Your task to perform on an android device: turn off smart reply in the gmail app Image 0: 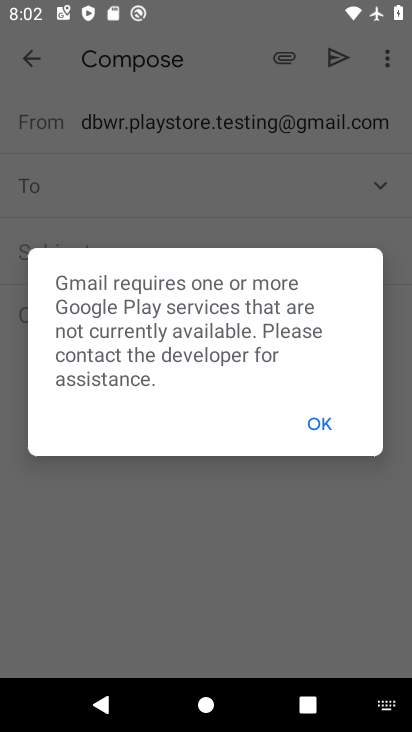
Step 0: click (304, 425)
Your task to perform on an android device: turn off smart reply in the gmail app Image 1: 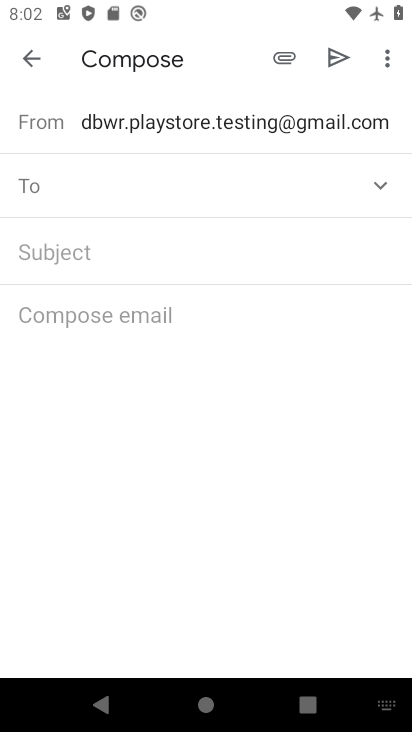
Step 1: press home button
Your task to perform on an android device: turn off smart reply in the gmail app Image 2: 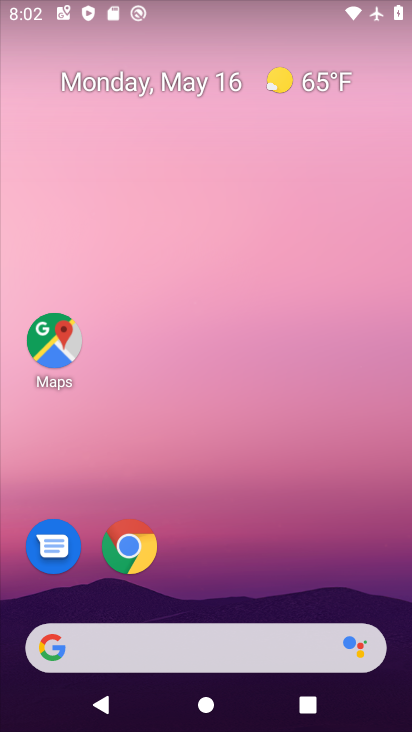
Step 2: drag from (249, 570) to (258, 175)
Your task to perform on an android device: turn off smart reply in the gmail app Image 3: 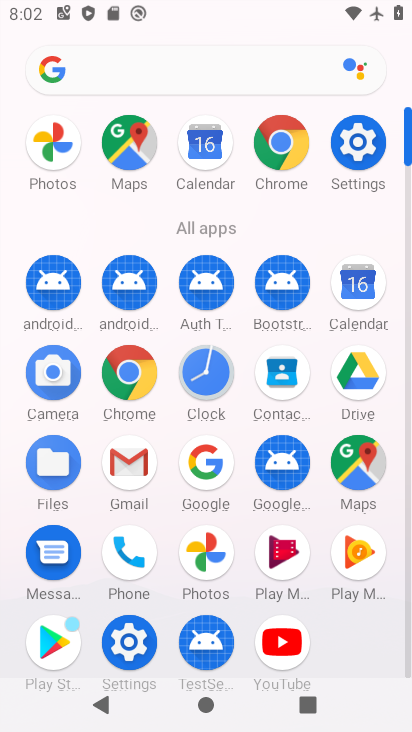
Step 3: click (132, 480)
Your task to perform on an android device: turn off smart reply in the gmail app Image 4: 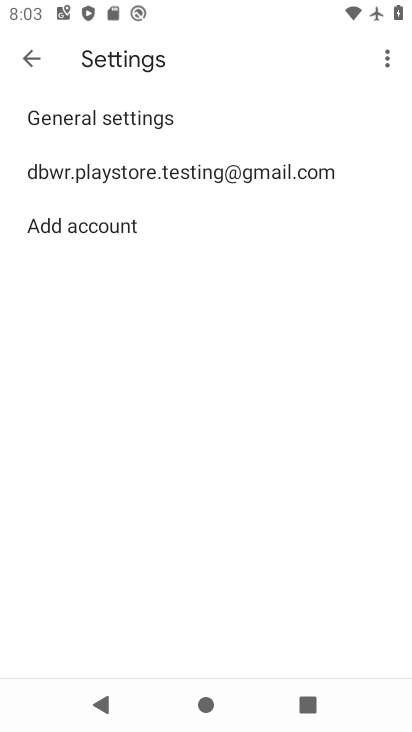
Step 4: click (99, 169)
Your task to perform on an android device: turn off smart reply in the gmail app Image 5: 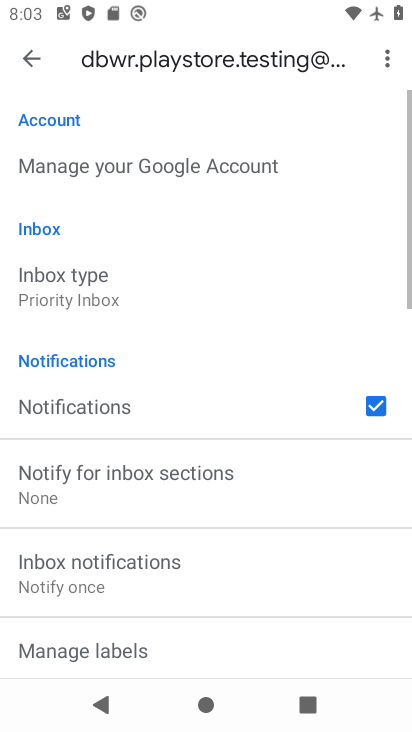
Step 5: drag from (132, 556) to (170, 312)
Your task to perform on an android device: turn off smart reply in the gmail app Image 6: 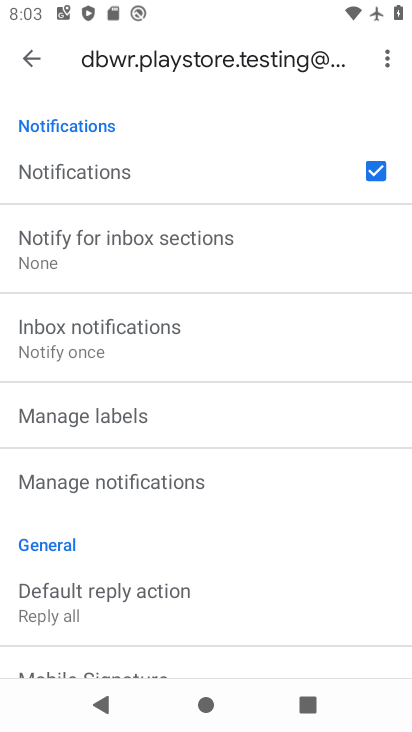
Step 6: drag from (133, 602) to (175, 382)
Your task to perform on an android device: turn off smart reply in the gmail app Image 7: 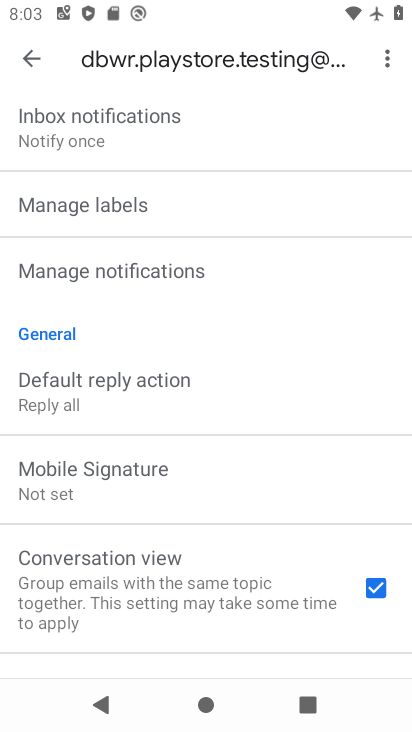
Step 7: drag from (170, 599) to (202, 398)
Your task to perform on an android device: turn off smart reply in the gmail app Image 8: 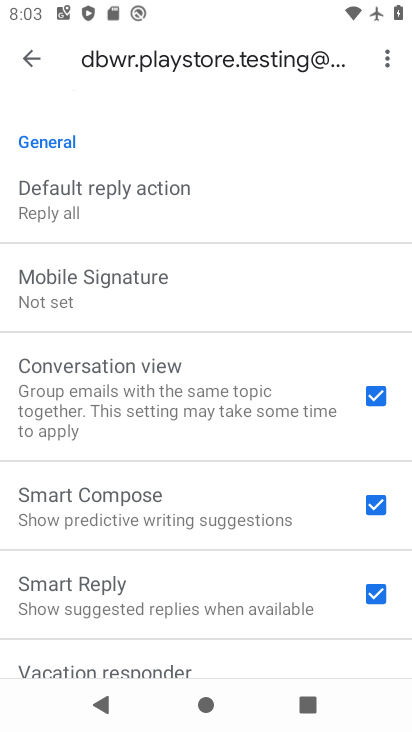
Step 8: click (364, 601)
Your task to perform on an android device: turn off smart reply in the gmail app Image 9: 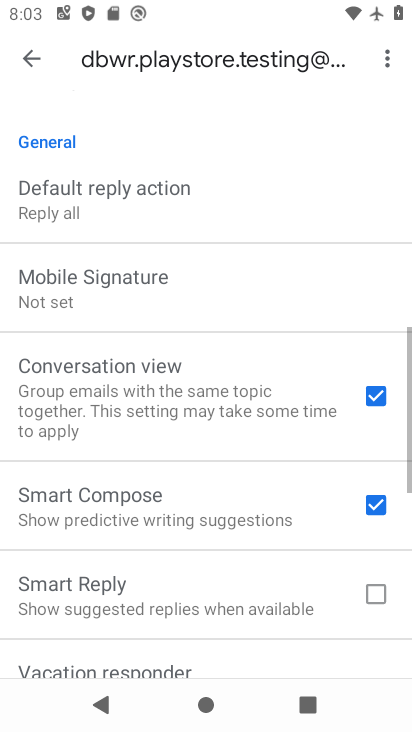
Step 9: task complete